Your task to perform on an android device: Open wifi settings Image 0: 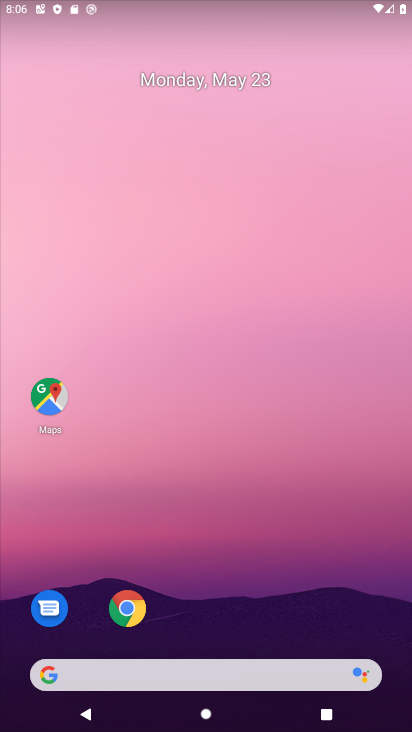
Step 0: drag from (232, 671) to (191, 108)
Your task to perform on an android device: Open wifi settings Image 1: 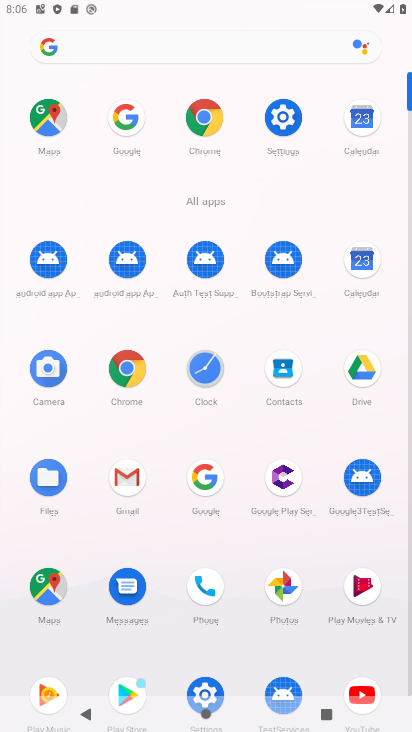
Step 1: click (276, 139)
Your task to perform on an android device: Open wifi settings Image 2: 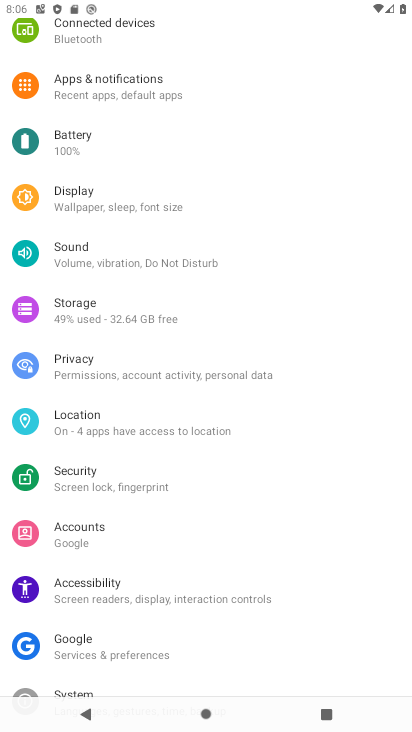
Step 2: drag from (127, 126) to (164, 639)
Your task to perform on an android device: Open wifi settings Image 3: 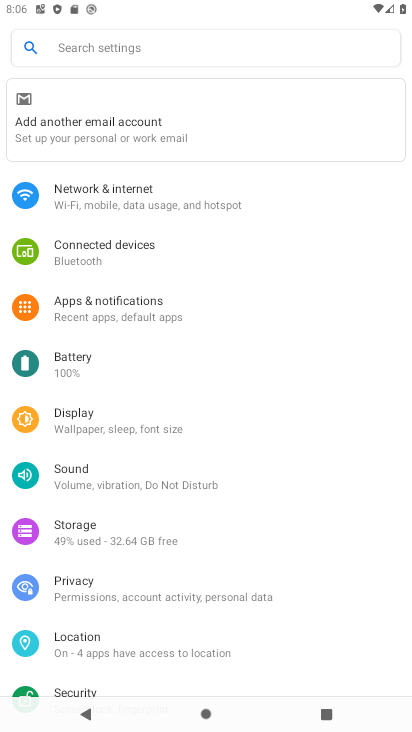
Step 3: click (116, 194)
Your task to perform on an android device: Open wifi settings Image 4: 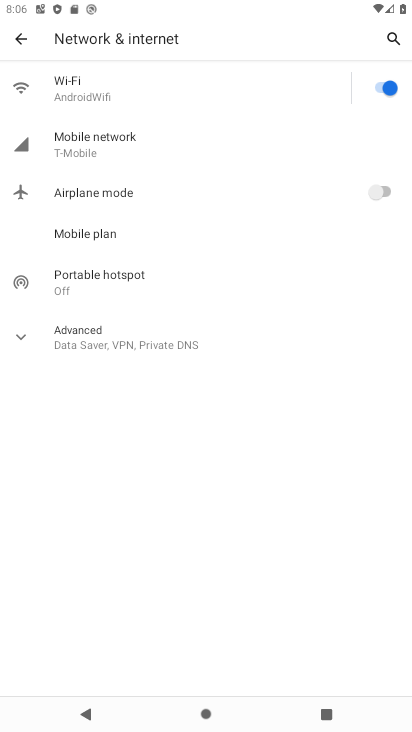
Step 4: click (86, 94)
Your task to perform on an android device: Open wifi settings Image 5: 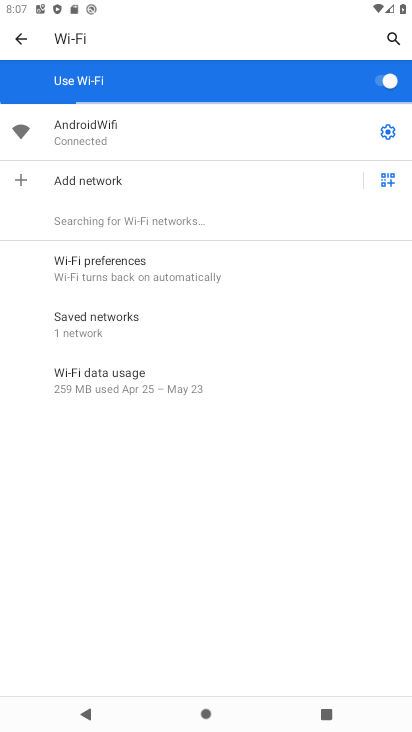
Step 5: click (138, 140)
Your task to perform on an android device: Open wifi settings Image 6: 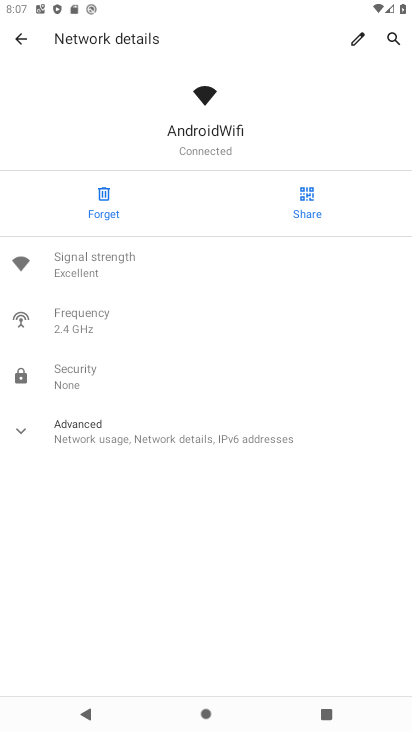
Step 6: task complete